Your task to perform on an android device: check out phone information Image 0: 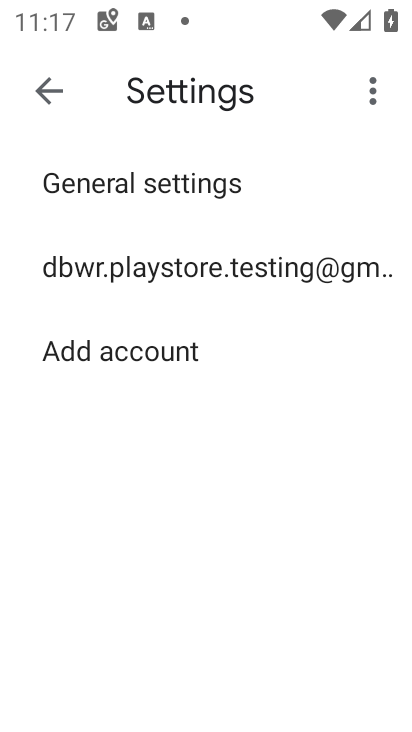
Step 0: press home button
Your task to perform on an android device: check out phone information Image 1: 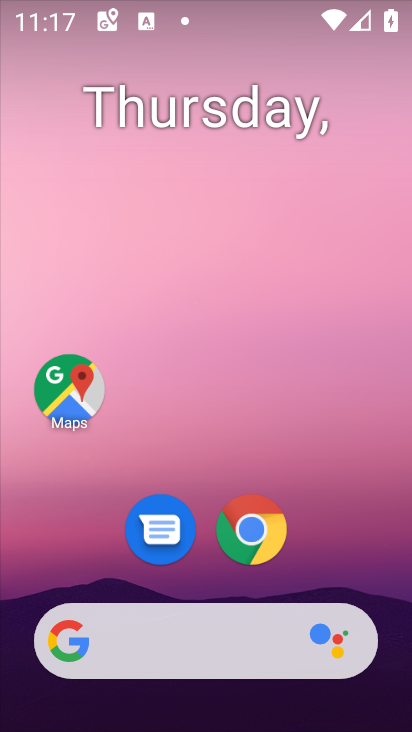
Step 1: drag from (364, 578) to (361, 80)
Your task to perform on an android device: check out phone information Image 2: 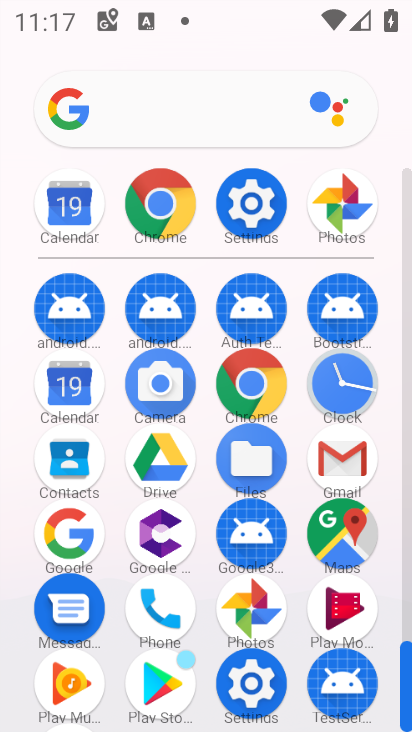
Step 2: click (261, 212)
Your task to perform on an android device: check out phone information Image 3: 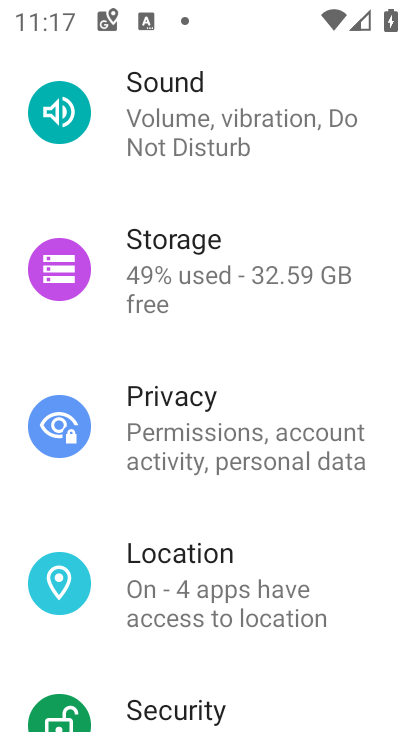
Step 3: drag from (159, 508) to (167, 202)
Your task to perform on an android device: check out phone information Image 4: 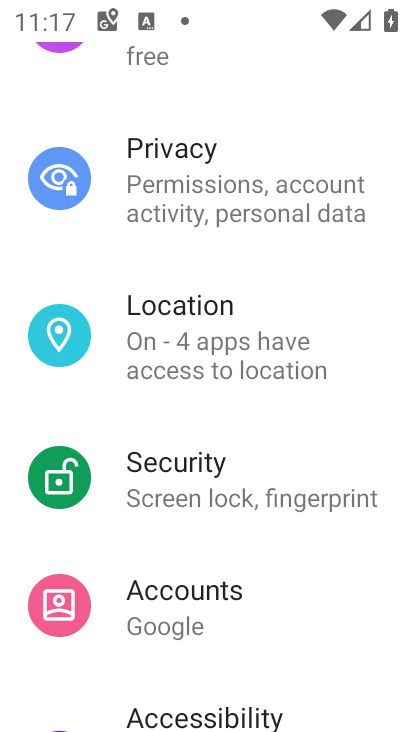
Step 4: drag from (210, 555) to (247, 203)
Your task to perform on an android device: check out phone information Image 5: 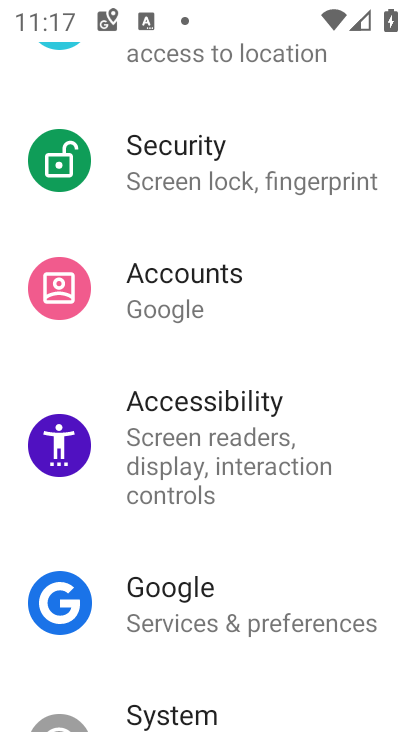
Step 5: drag from (216, 569) to (263, 192)
Your task to perform on an android device: check out phone information Image 6: 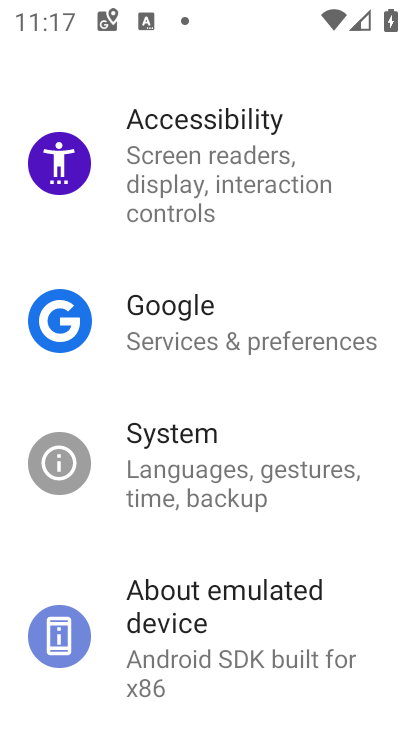
Step 6: drag from (213, 570) to (238, 239)
Your task to perform on an android device: check out phone information Image 7: 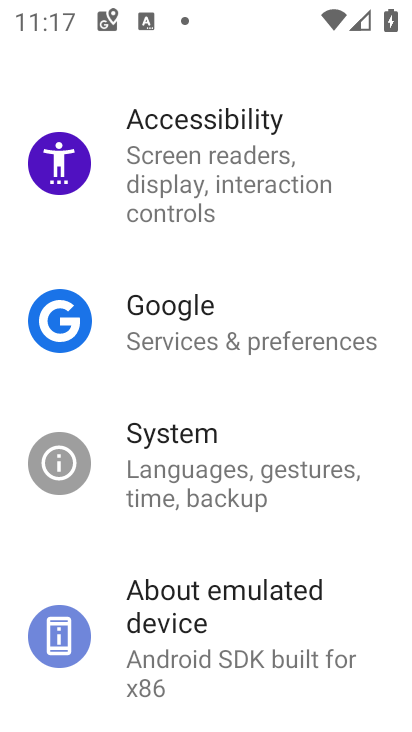
Step 7: click (265, 621)
Your task to perform on an android device: check out phone information Image 8: 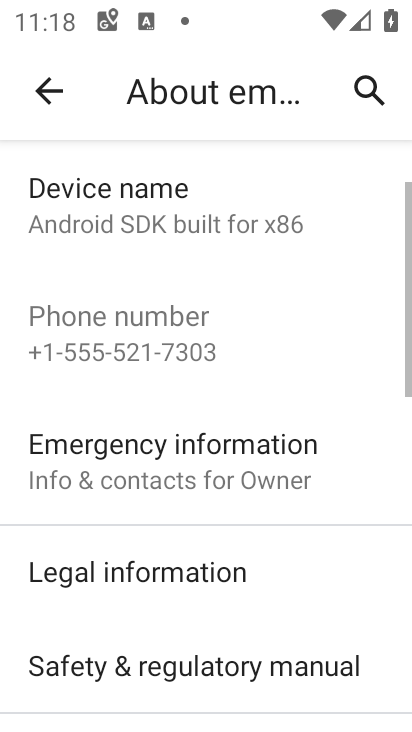
Step 8: task complete